Your task to perform on an android device: empty trash in the gmail app Image 0: 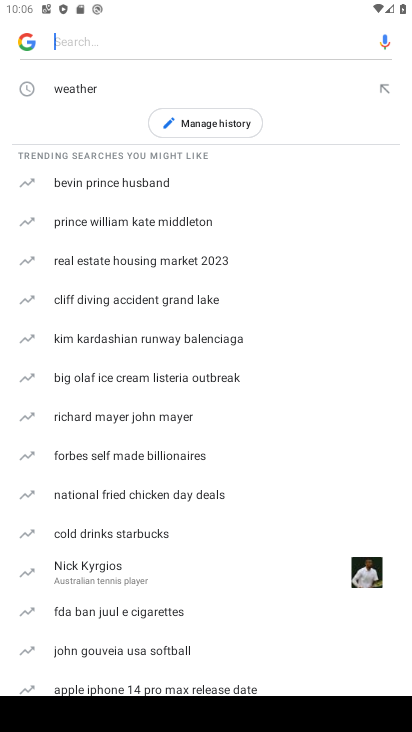
Step 0: press back button
Your task to perform on an android device: empty trash in the gmail app Image 1: 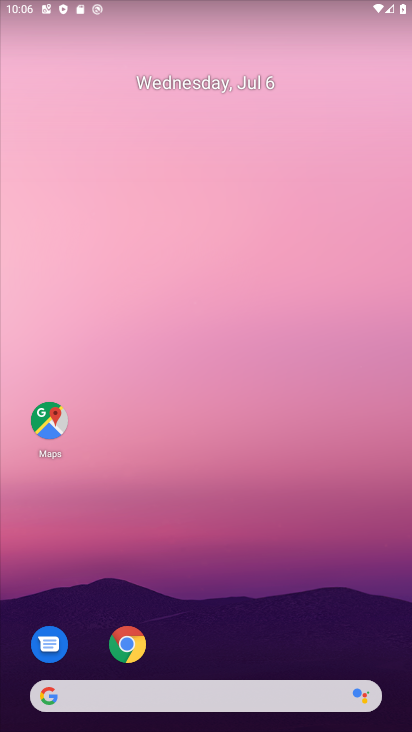
Step 1: drag from (275, 603) to (191, 248)
Your task to perform on an android device: empty trash in the gmail app Image 2: 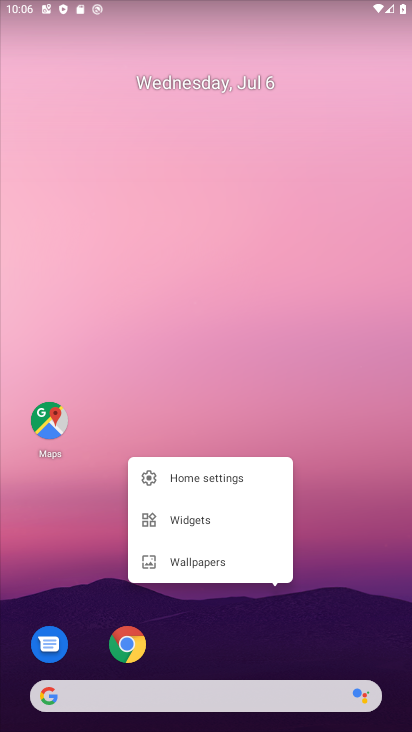
Step 2: click (208, 237)
Your task to perform on an android device: empty trash in the gmail app Image 3: 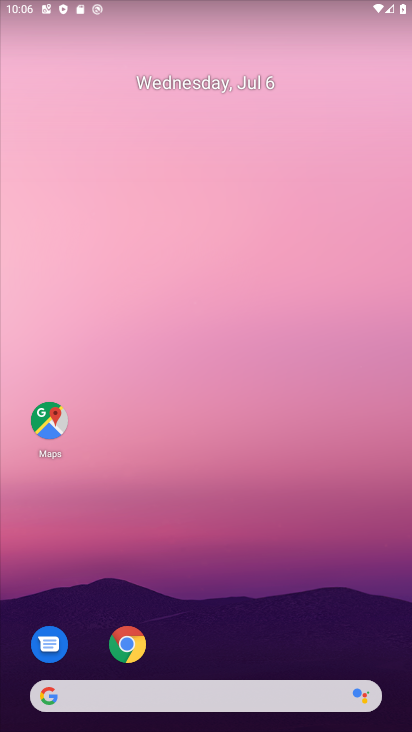
Step 3: drag from (242, 584) to (216, 339)
Your task to perform on an android device: empty trash in the gmail app Image 4: 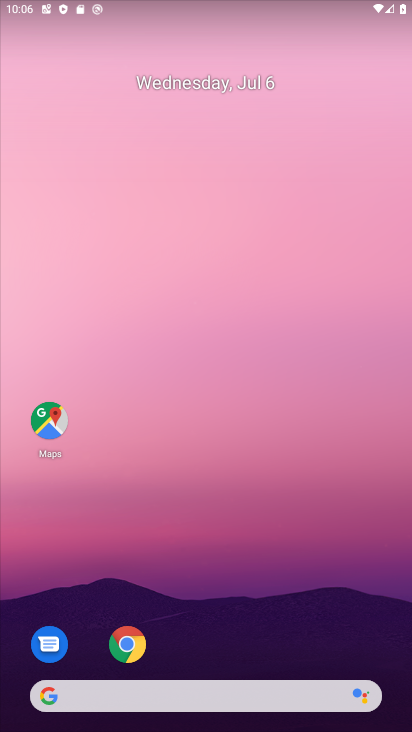
Step 4: drag from (293, 667) to (167, 39)
Your task to perform on an android device: empty trash in the gmail app Image 5: 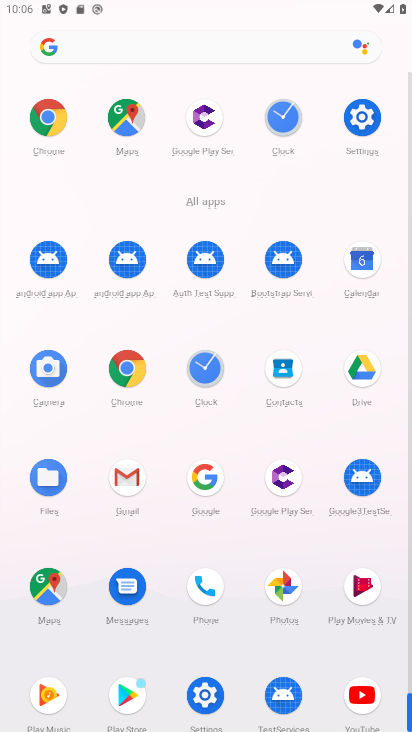
Step 5: click (84, 257)
Your task to perform on an android device: empty trash in the gmail app Image 6: 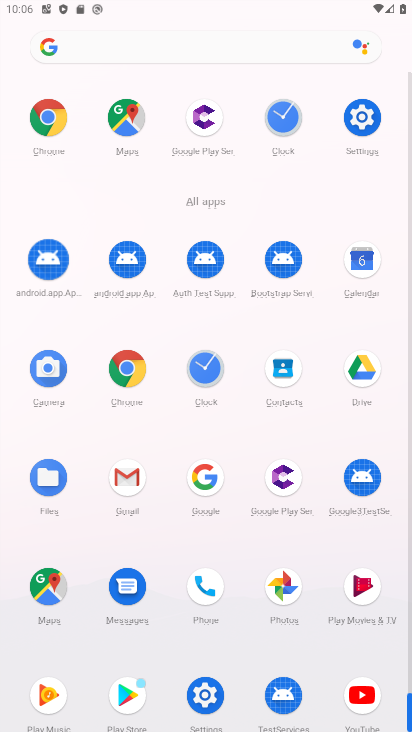
Step 6: click (129, 481)
Your task to perform on an android device: empty trash in the gmail app Image 7: 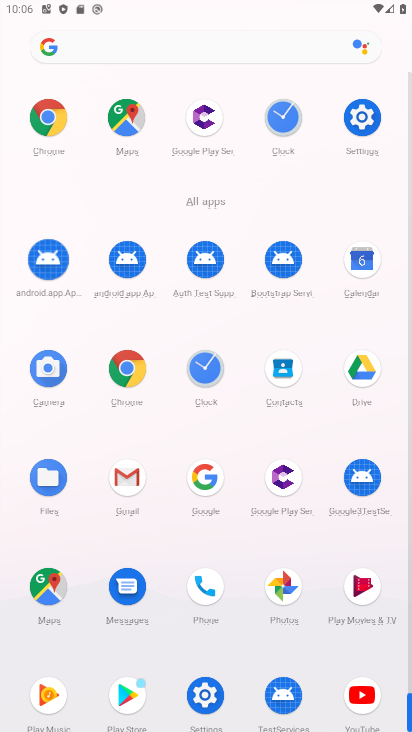
Step 7: click (129, 481)
Your task to perform on an android device: empty trash in the gmail app Image 8: 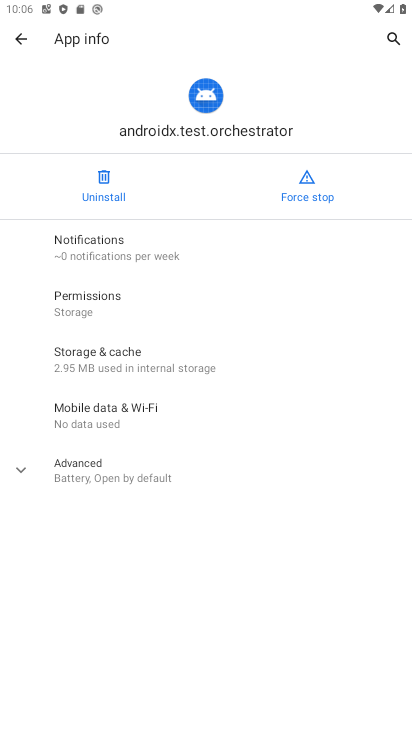
Step 8: click (134, 473)
Your task to perform on an android device: empty trash in the gmail app Image 9: 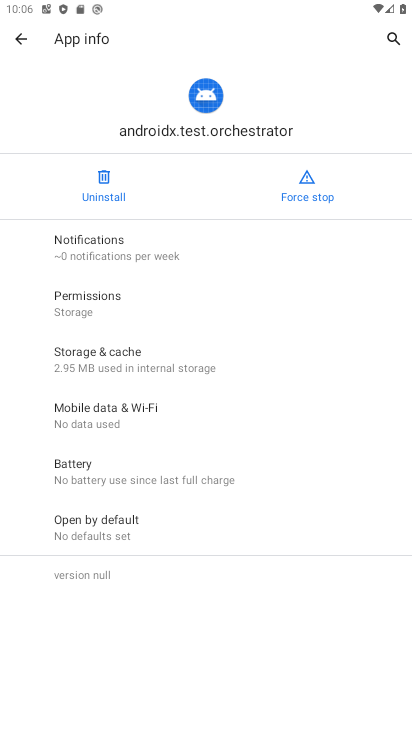
Step 9: click (23, 37)
Your task to perform on an android device: empty trash in the gmail app Image 10: 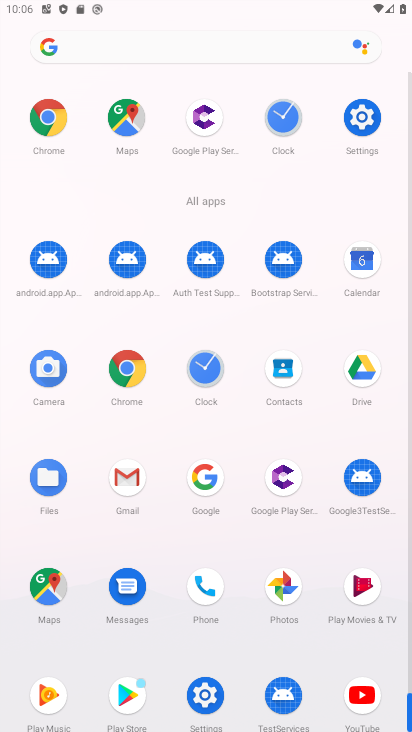
Step 10: click (120, 467)
Your task to perform on an android device: empty trash in the gmail app Image 11: 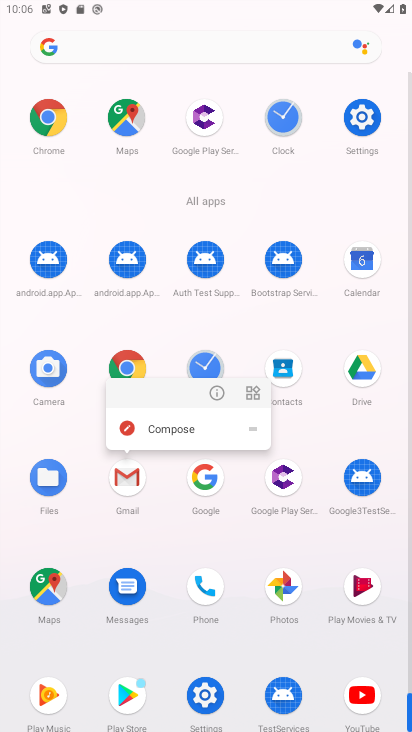
Step 11: click (124, 476)
Your task to perform on an android device: empty trash in the gmail app Image 12: 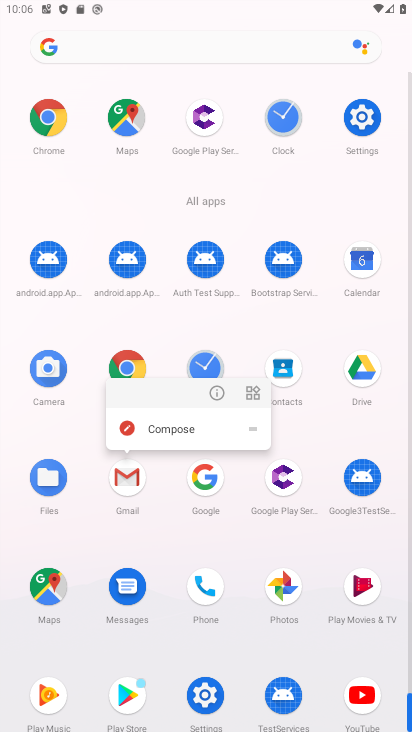
Step 12: click (127, 474)
Your task to perform on an android device: empty trash in the gmail app Image 13: 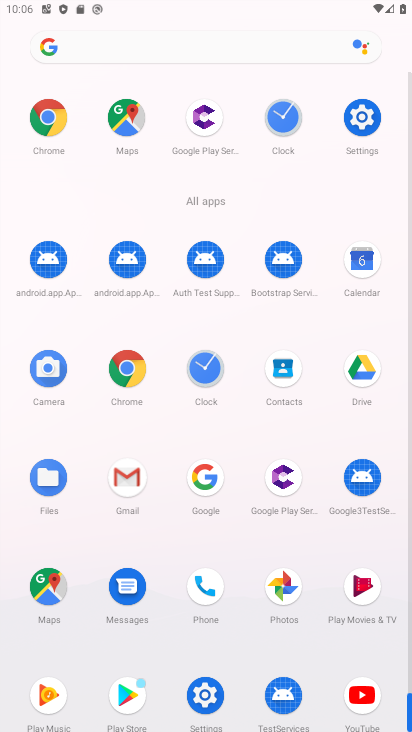
Step 13: click (127, 475)
Your task to perform on an android device: empty trash in the gmail app Image 14: 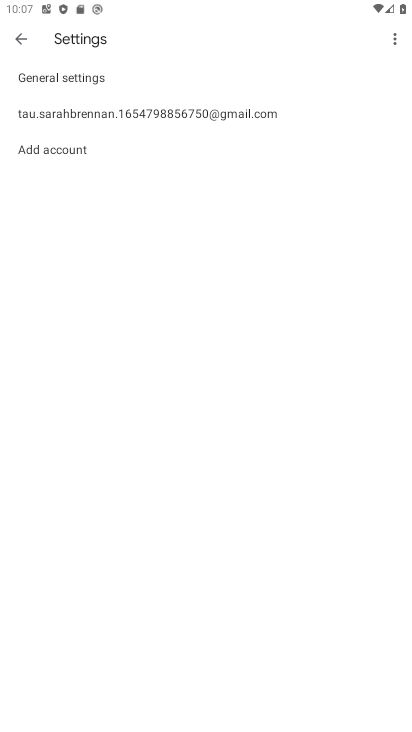
Step 14: click (126, 470)
Your task to perform on an android device: empty trash in the gmail app Image 15: 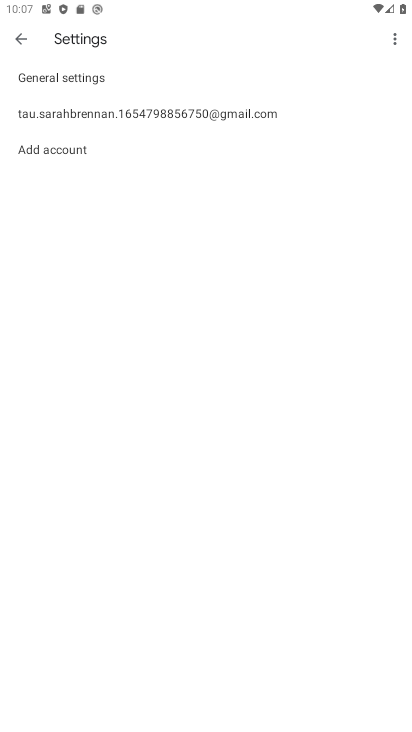
Step 15: click (23, 32)
Your task to perform on an android device: empty trash in the gmail app Image 16: 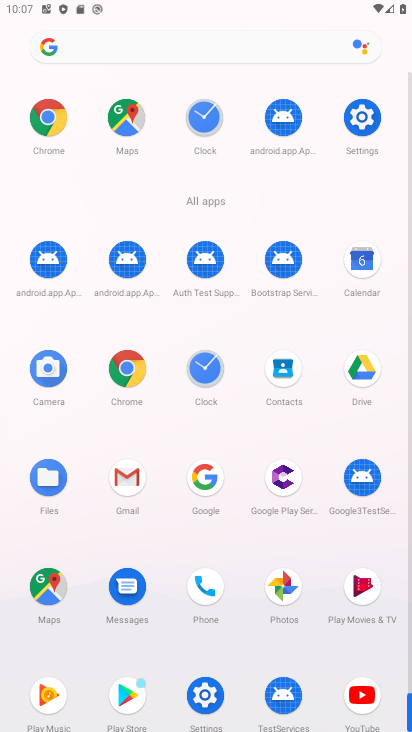
Step 16: click (114, 475)
Your task to perform on an android device: empty trash in the gmail app Image 17: 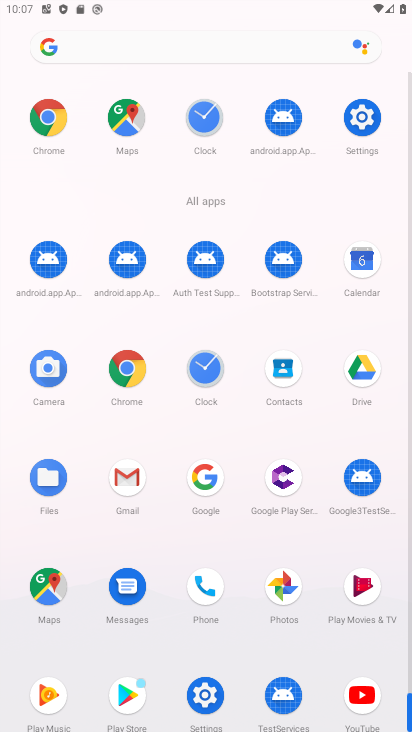
Step 17: click (114, 474)
Your task to perform on an android device: empty trash in the gmail app Image 18: 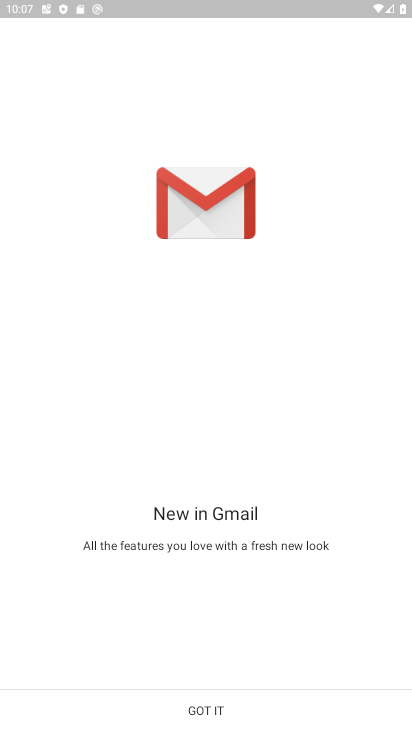
Step 18: click (222, 696)
Your task to perform on an android device: empty trash in the gmail app Image 19: 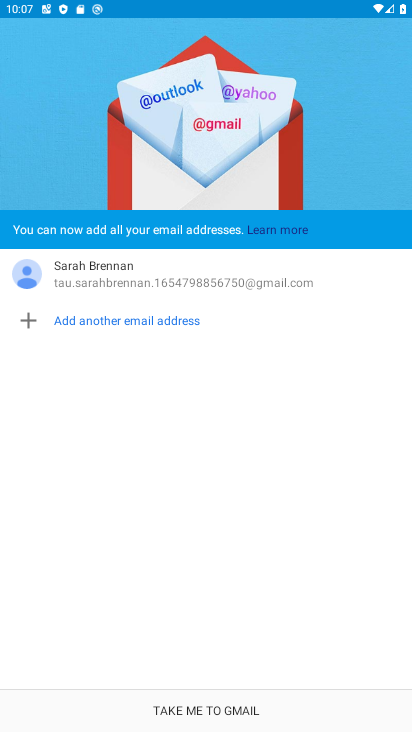
Step 19: click (219, 708)
Your task to perform on an android device: empty trash in the gmail app Image 20: 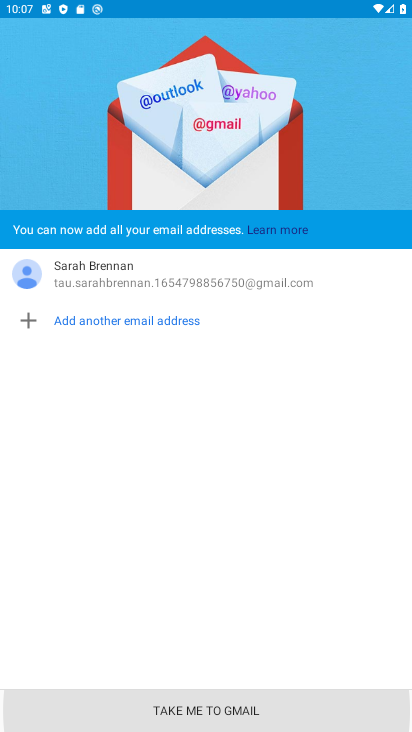
Step 20: click (219, 708)
Your task to perform on an android device: empty trash in the gmail app Image 21: 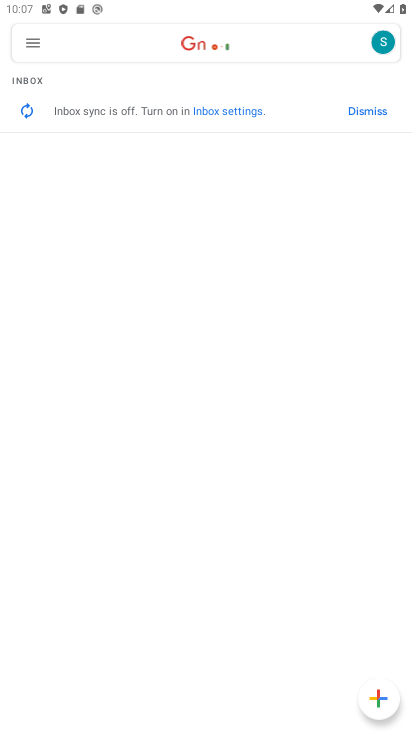
Step 21: click (34, 39)
Your task to perform on an android device: empty trash in the gmail app Image 22: 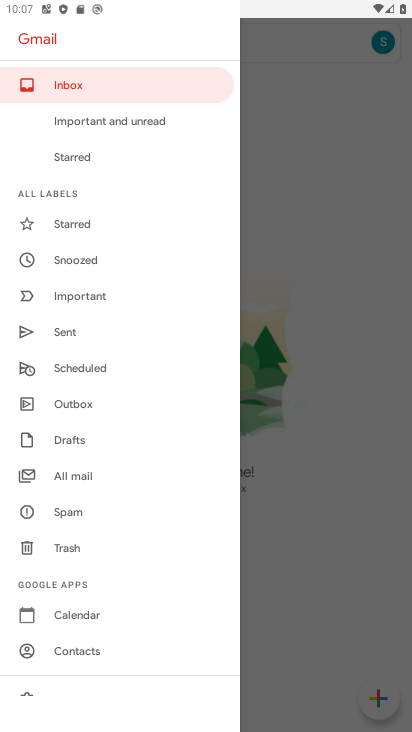
Step 22: click (64, 551)
Your task to perform on an android device: empty trash in the gmail app Image 23: 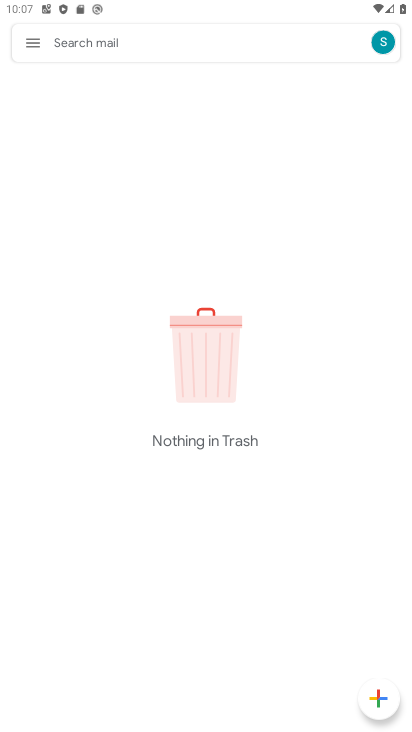
Step 23: task complete